Your task to perform on an android device: Add razer blade to the cart on costco Image 0: 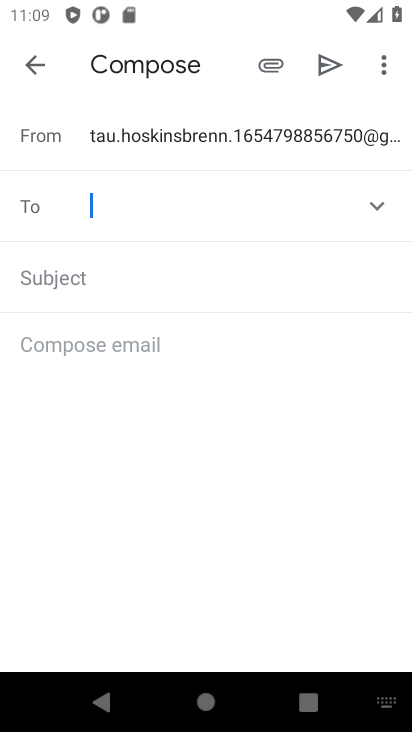
Step 0: press home button
Your task to perform on an android device: Add razer blade to the cart on costco Image 1: 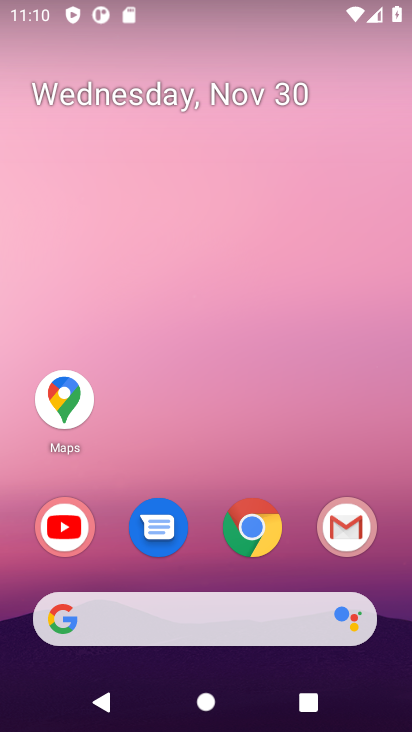
Step 1: click (263, 523)
Your task to perform on an android device: Add razer blade to the cart on costco Image 2: 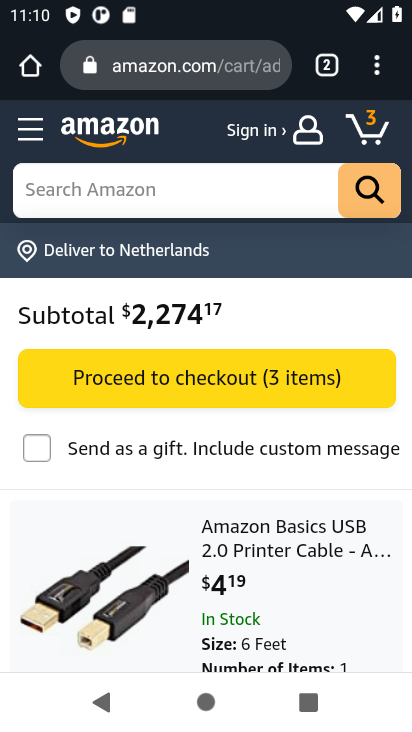
Step 2: click (162, 72)
Your task to perform on an android device: Add razer blade to the cart on costco Image 3: 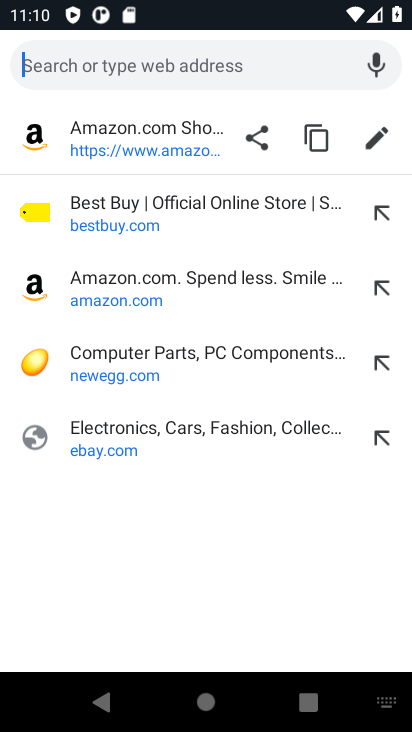
Step 3: type "costco.com"
Your task to perform on an android device: Add razer blade to the cart on costco Image 4: 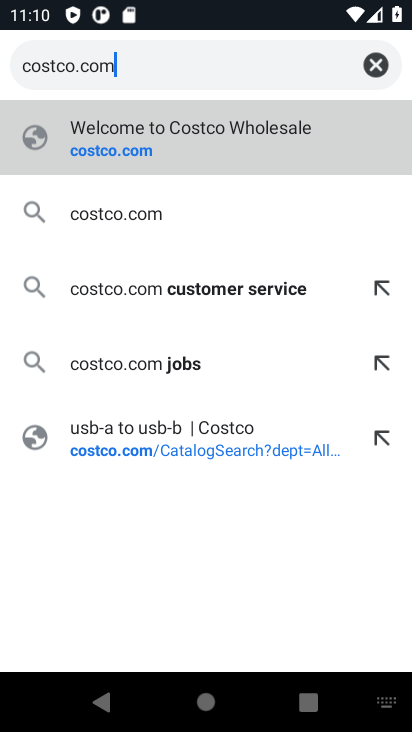
Step 4: click (100, 154)
Your task to perform on an android device: Add razer blade to the cart on costco Image 5: 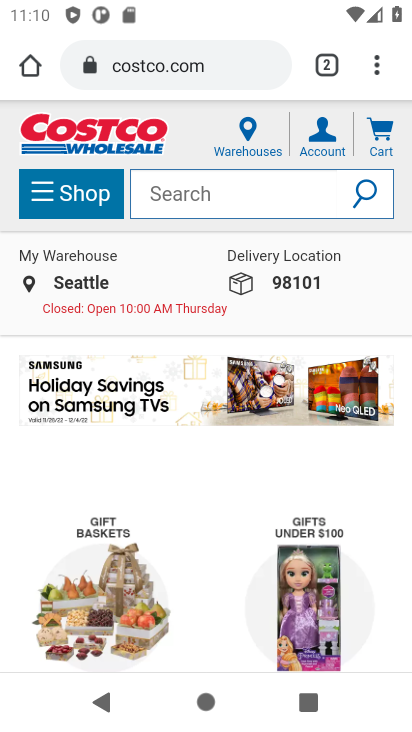
Step 5: click (220, 190)
Your task to perform on an android device: Add razer blade to the cart on costco Image 6: 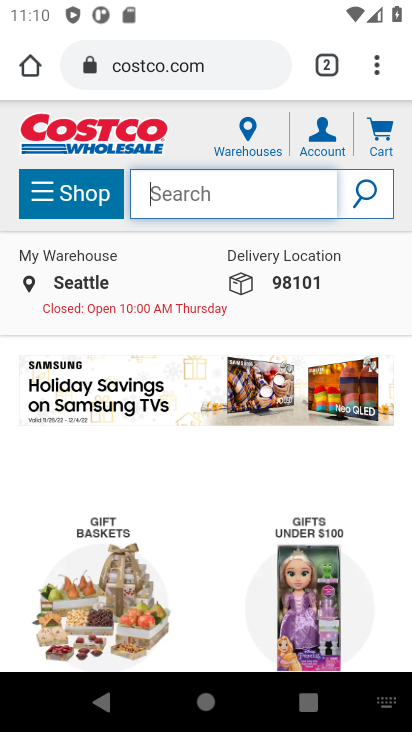
Step 6: type " razer blade"
Your task to perform on an android device: Add razer blade to the cart on costco Image 7: 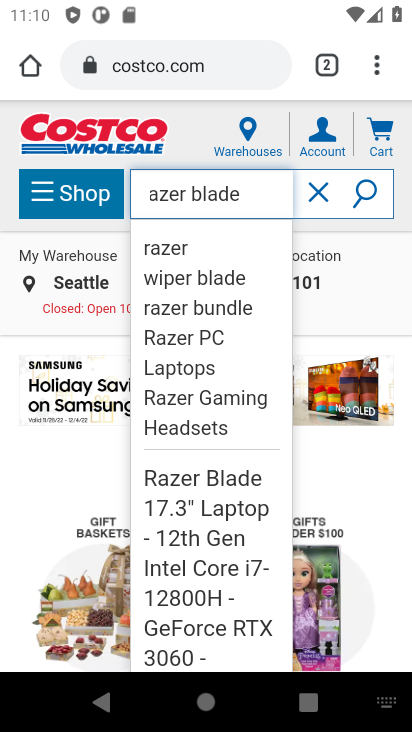
Step 7: click (359, 200)
Your task to perform on an android device: Add razer blade to the cart on costco Image 8: 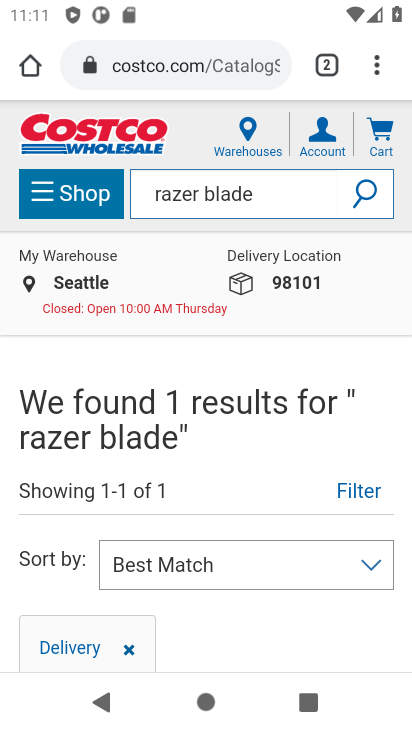
Step 8: drag from (208, 427) to (208, 180)
Your task to perform on an android device: Add razer blade to the cart on costco Image 9: 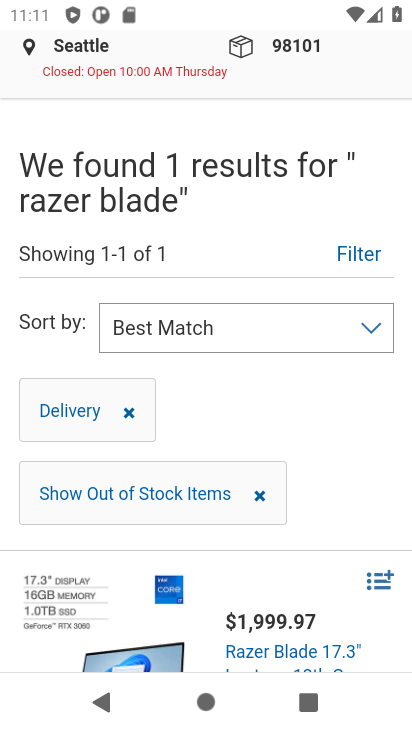
Step 9: drag from (189, 418) to (192, 243)
Your task to perform on an android device: Add razer blade to the cart on costco Image 10: 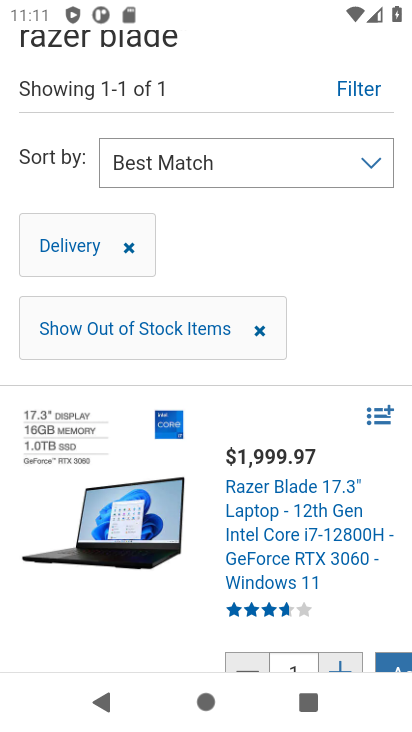
Step 10: drag from (276, 547) to (261, 339)
Your task to perform on an android device: Add razer blade to the cart on costco Image 11: 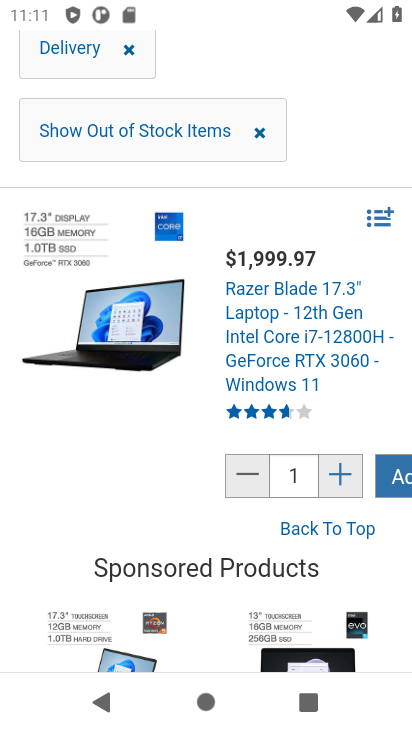
Step 11: click (399, 472)
Your task to perform on an android device: Add razer blade to the cart on costco Image 12: 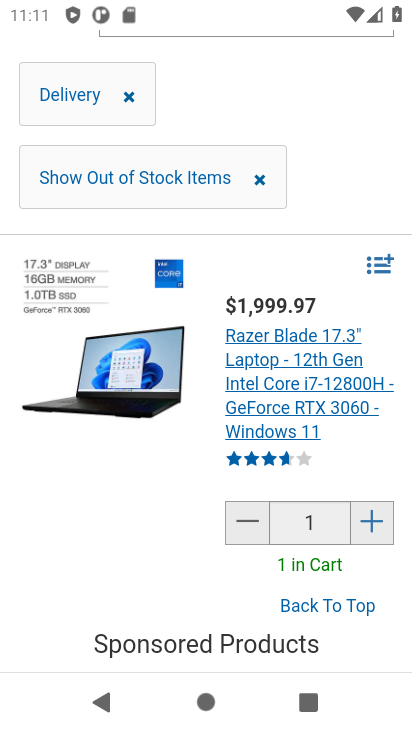
Step 12: task complete